Your task to perform on an android device: Search for the best vacuum on Amazon. Image 0: 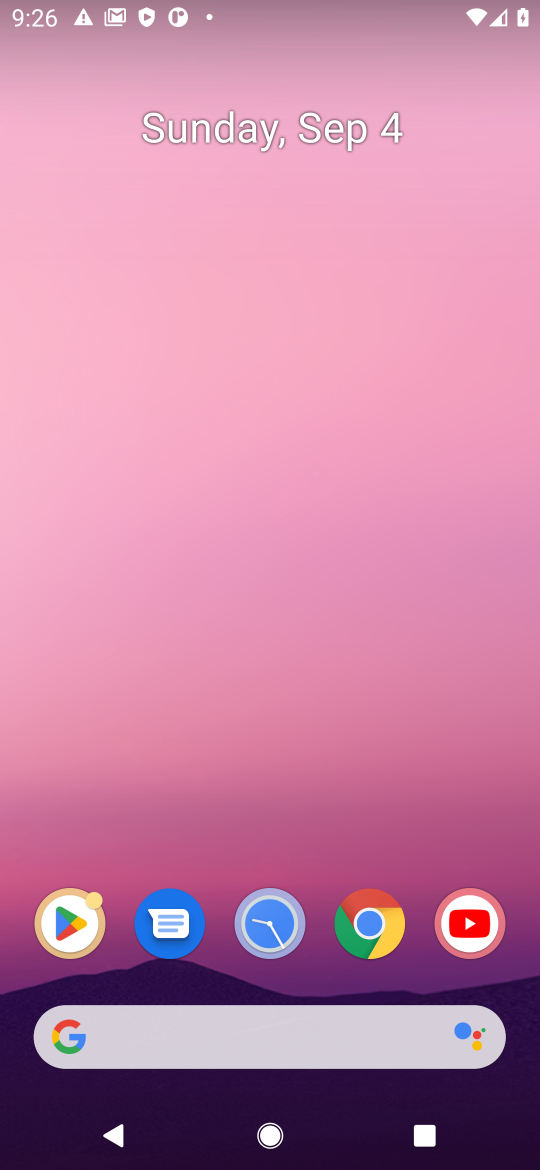
Step 0: press home button
Your task to perform on an android device: Search for the best vacuum on Amazon. Image 1: 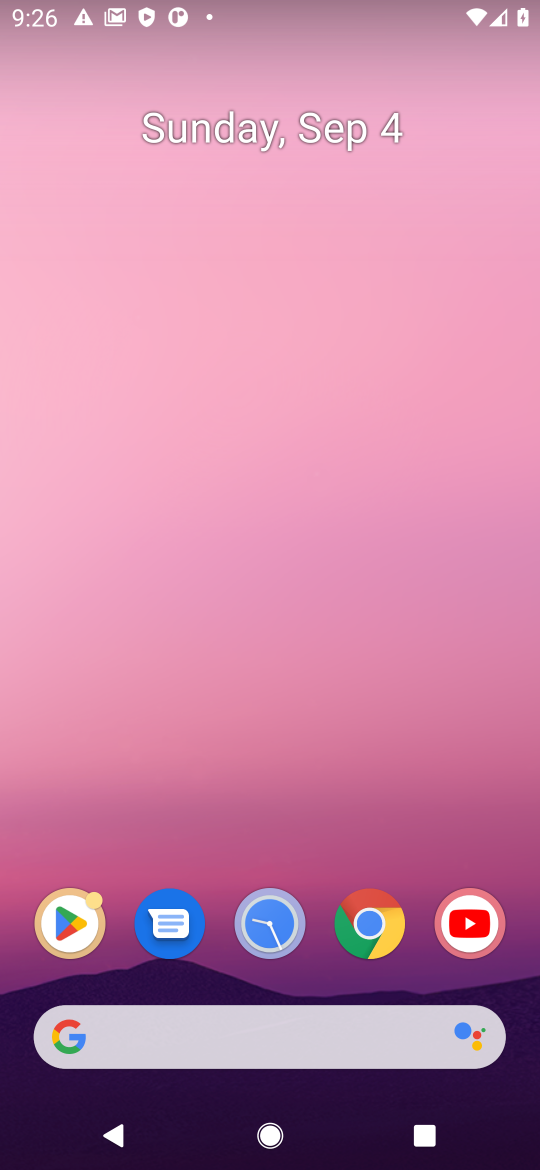
Step 1: click (377, 1051)
Your task to perform on an android device: Search for the best vacuum on Amazon. Image 2: 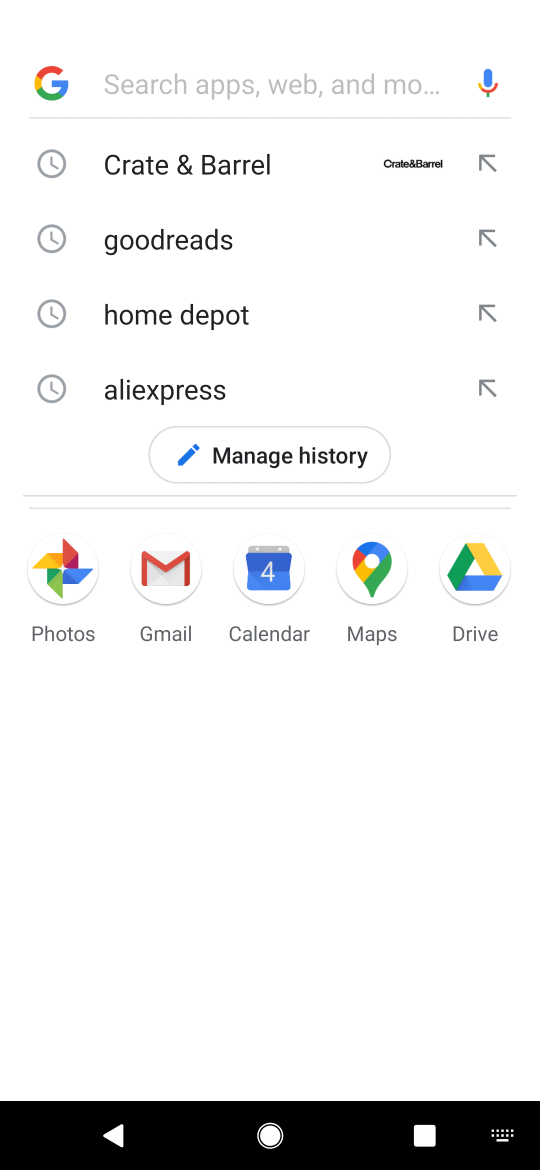
Step 2: press enter
Your task to perform on an android device: Search for the best vacuum on Amazon. Image 3: 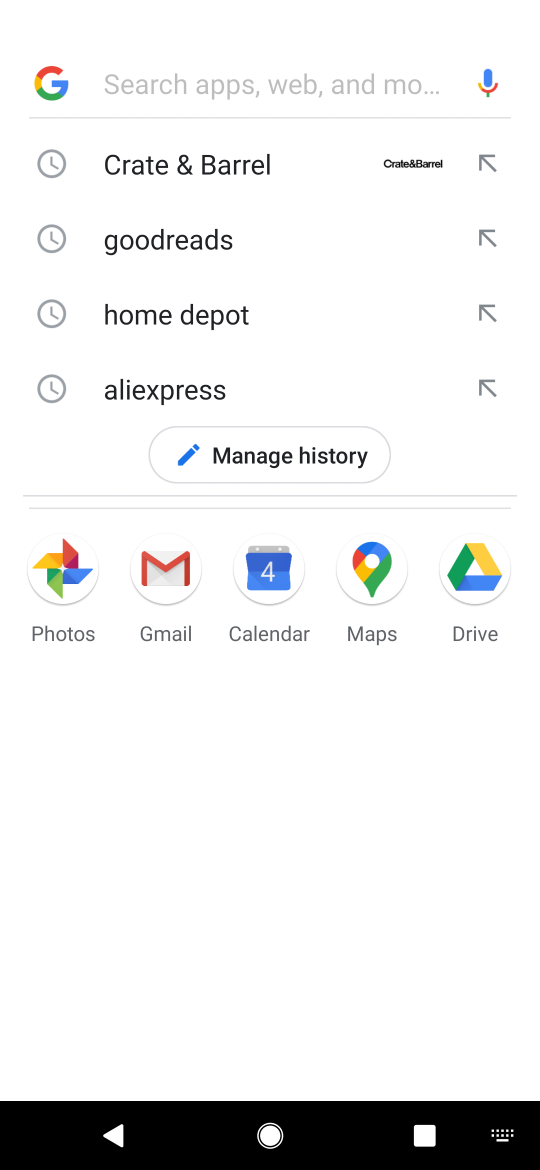
Step 3: type "amazon"
Your task to perform on an android device: Search for the best vacuum on Amazon. Image 4: 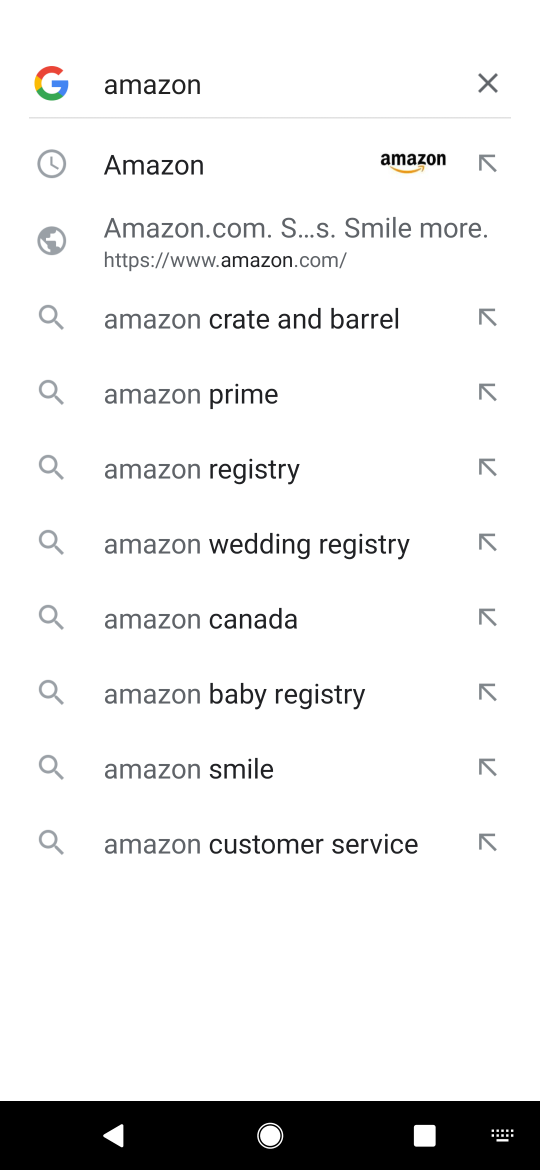
Step 4: click (201, 164)
Your task to perform on an android device: Search for the best vacuum on Amazon. Image 5: 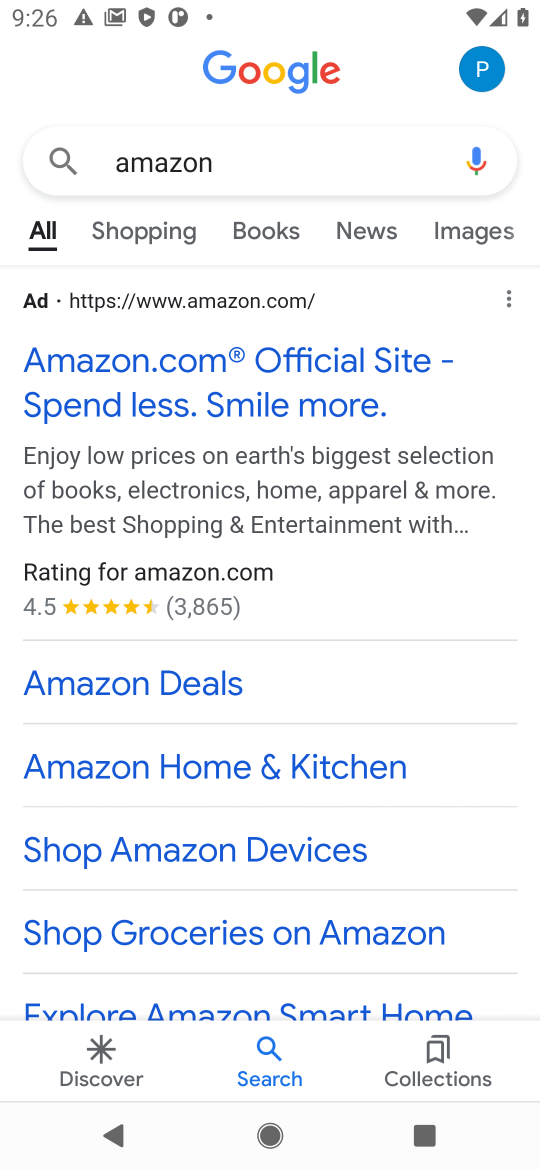
Step 5: click (194, 377)
Your task to perform on an android device: Search for the best vacuum on Amazon. Image 6: 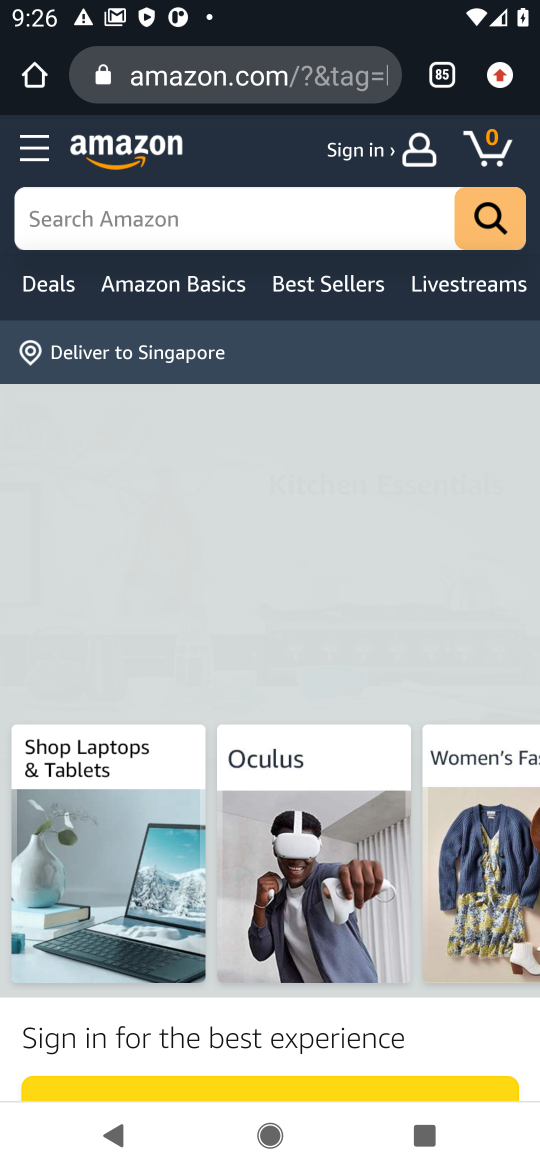
Step 6: click (276, 215)
Your task to perform on an android device: Search for the best vacuum on Amazon. Image 7: 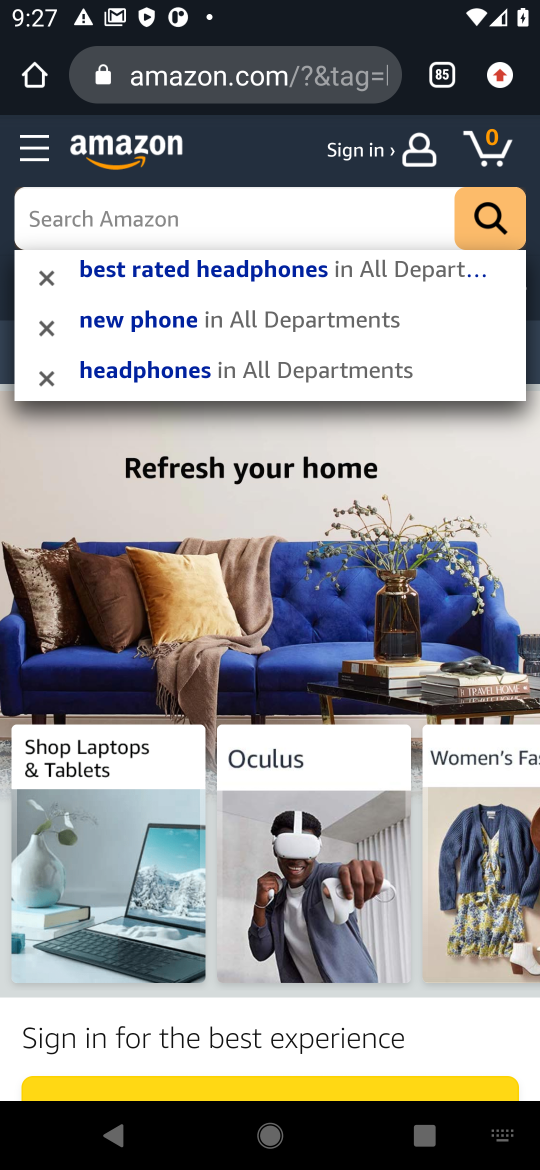
Step 7: type "best vacuum "
Your task to perform on an android device: Search for the best vacuum on Amazon. Image 8: 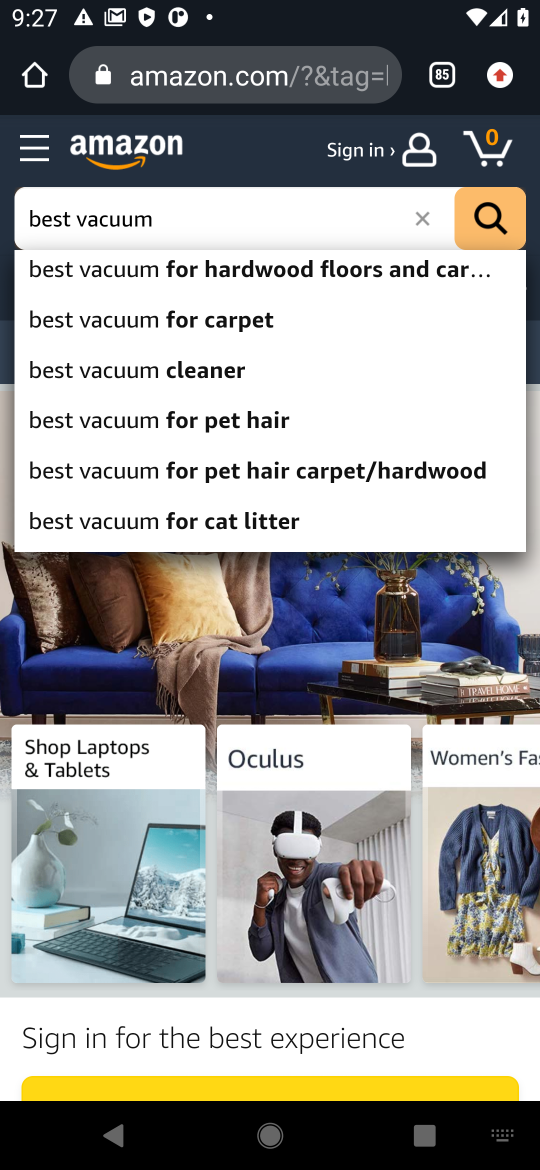
Step 8: click (487, 222)
Your task to perform on an android device: Search for the best vacuum on Amazon. Image 9: 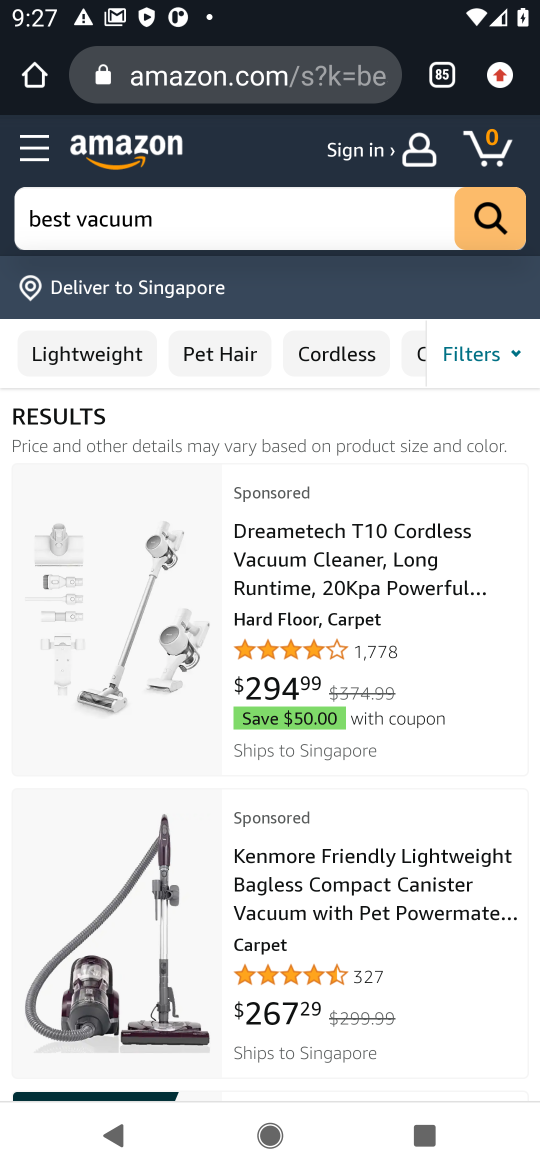
Step 9: task complete